Your task to perform on an android device: check the backup settings in the google photos Image 0: 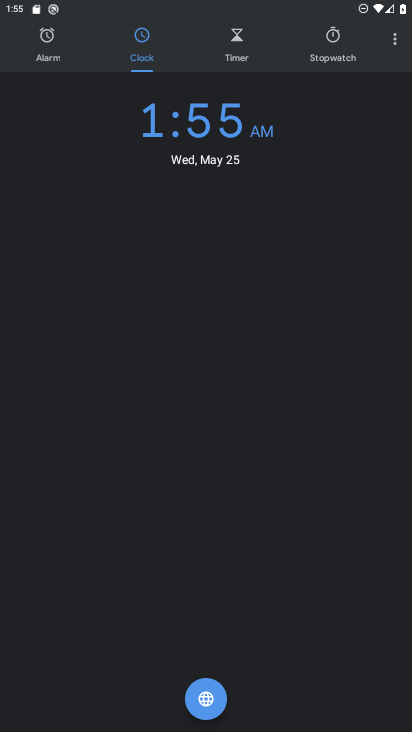
Step 0: press home button
Your task to perform on an android device: check the backup settings in the google photos Image 1: 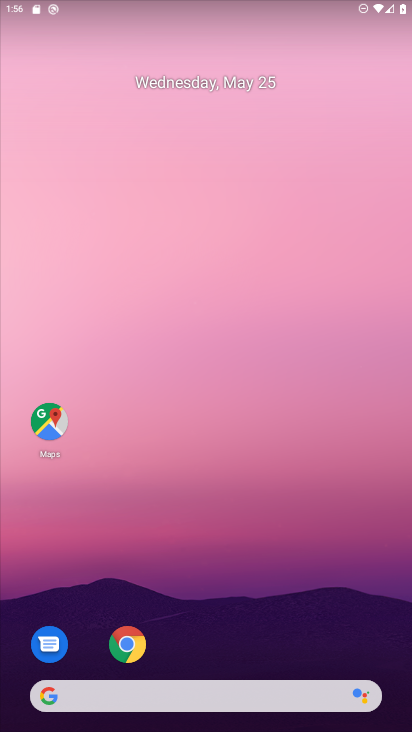
Step 1: drag from (227, 389) to (208, 187)
Your task to perform on an android device: check the backup settings in the google photos Image 2: 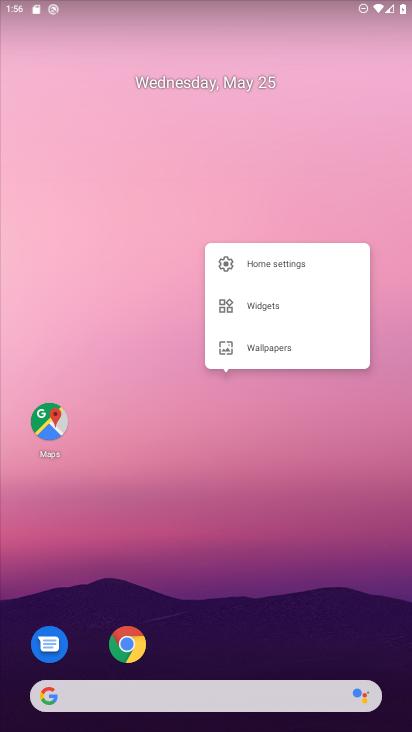
Step 2: drag from (205, 632) to (156, 222)
Your task to perform on an android device: check the backup settings in the google photos Image 3: 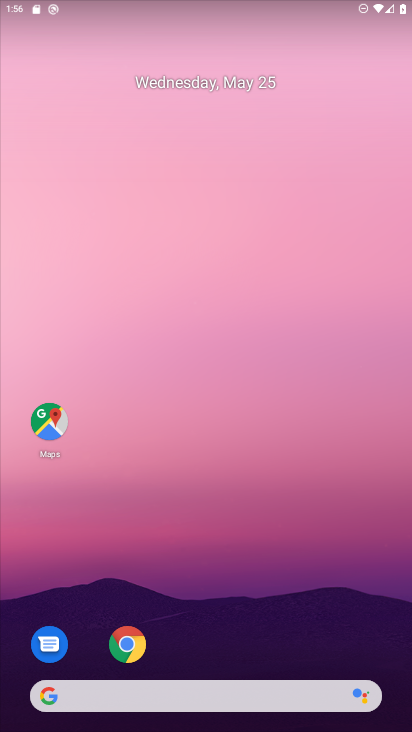
Step 3: drag from (248, 645) to (247, 212)
Your task to perform on an android device: check the backup settings in the google photos Image 4: 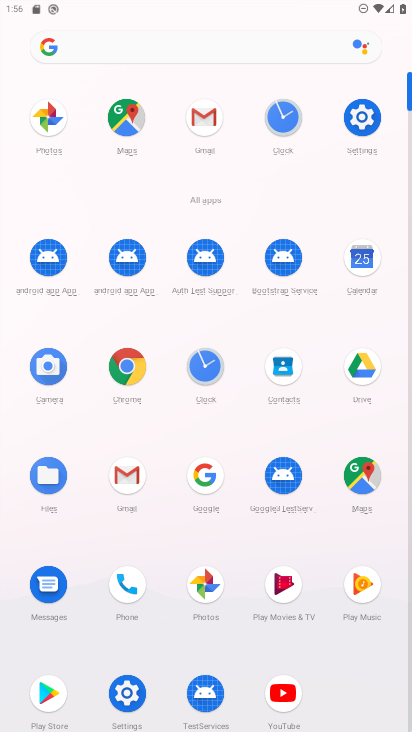
Step 4: click (48, 119)
Your task to perform on an android device: check the backup settings in the google photos Image 5: 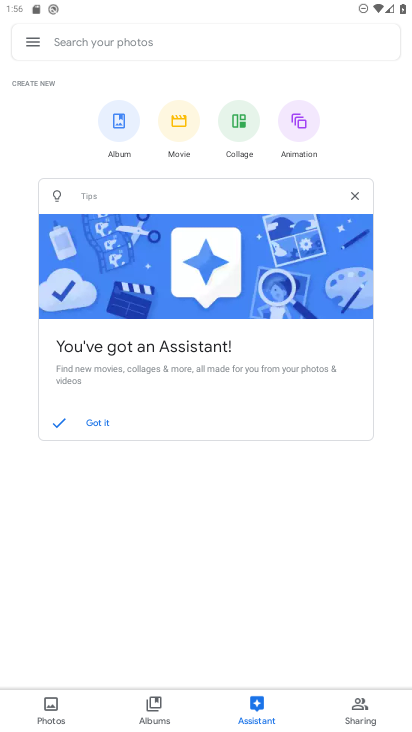
Step 5: click (31, 43)
Your task to perform on an android device: check the backup settings in the google photos Image 6: 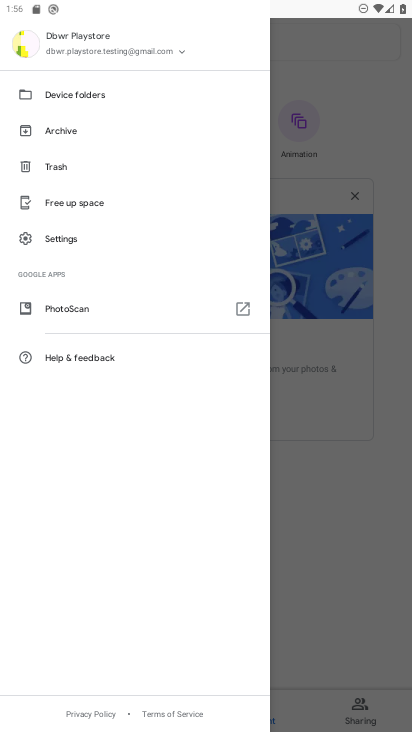
Step 6: click (69, 241)
Your task to perform on an android device: check the backup settings in the google photos Image 7: 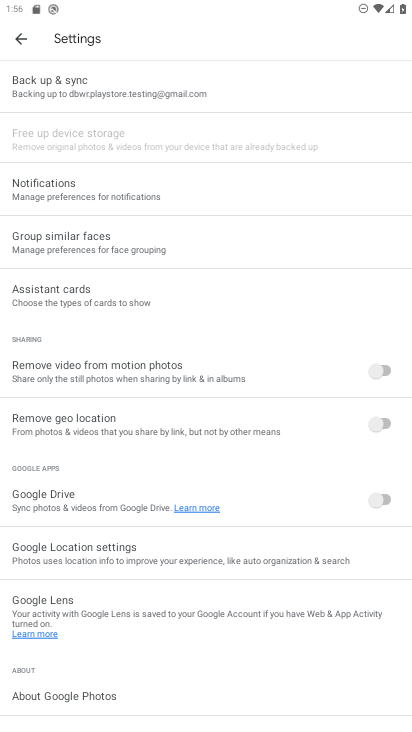
Step 7: click (96, 103)
Your task to perform on an android device: check the backup settings in the google photos Image 8: 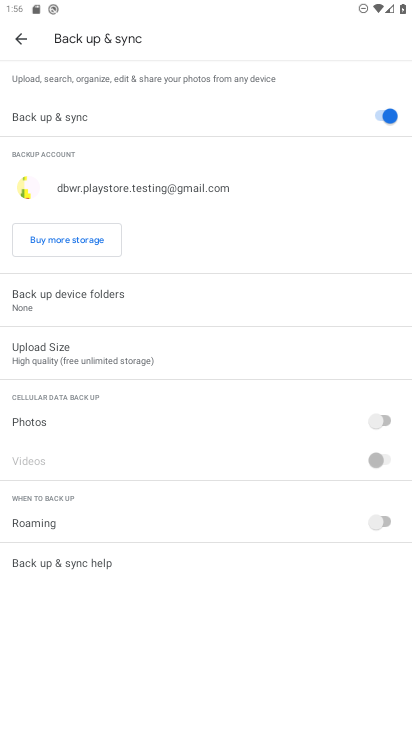
Step 8: task complete